Your task to perform on an android device: change notifications settings Image 0: 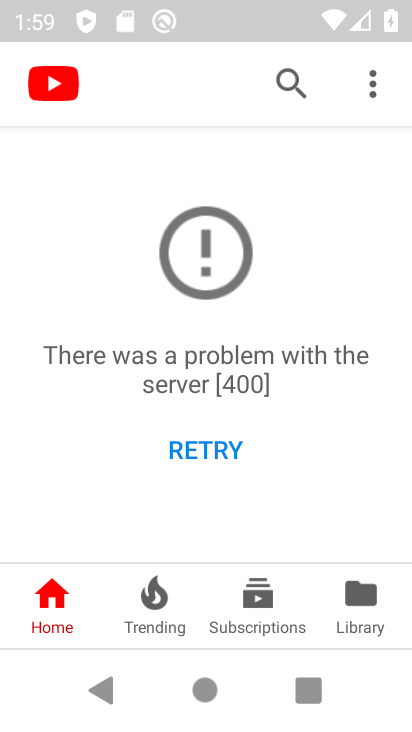
Step 0: press home button
Your task to perform on an android device: change notifications settings Image 1: 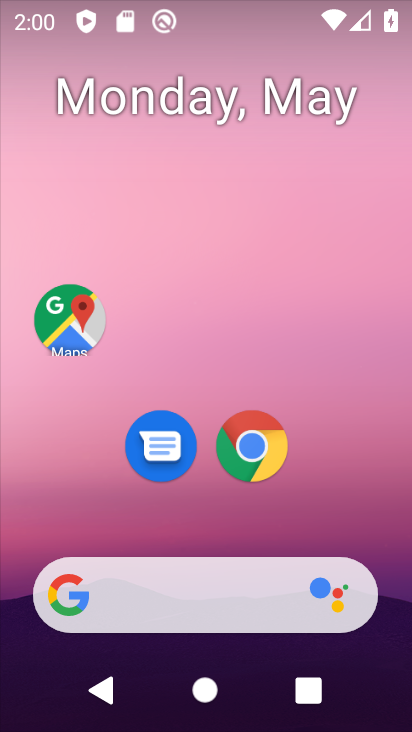
Step 1: drag from (372, 460) to (323, 62)
Your task to perform on an android device: change notifications settings Image 2: 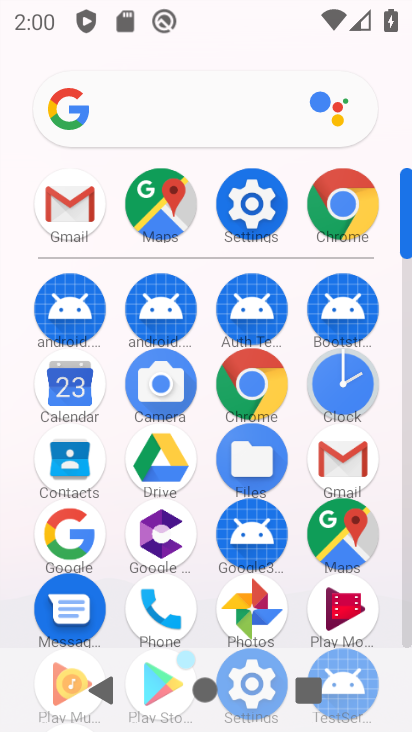
Step 2: click (257, 200)
Your task to perform on an android device: change notifications settings Image 3: 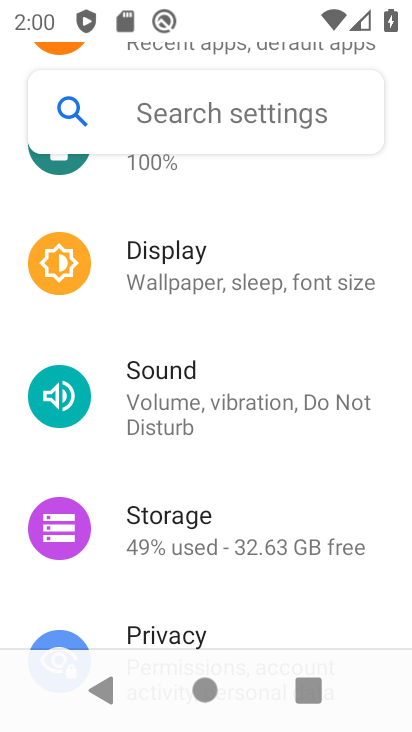
Step 3: drag from (228, 313) to (221, 547)
Your task to perform on an android device: change notifications settings Image 4: 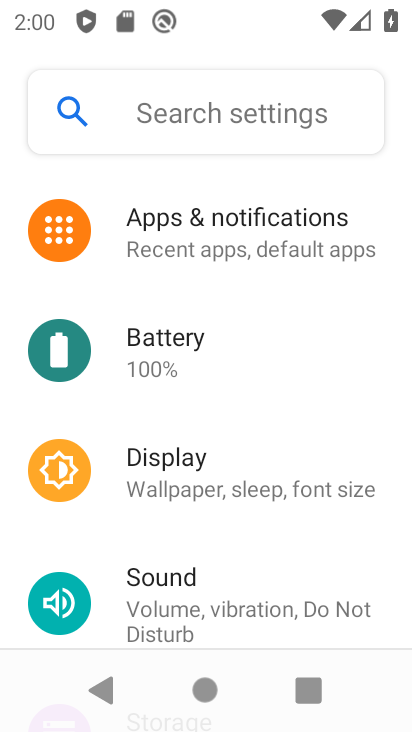
Step 4: click (212, 246)
Your task to perform on an android device: change notifications settings Image 5: 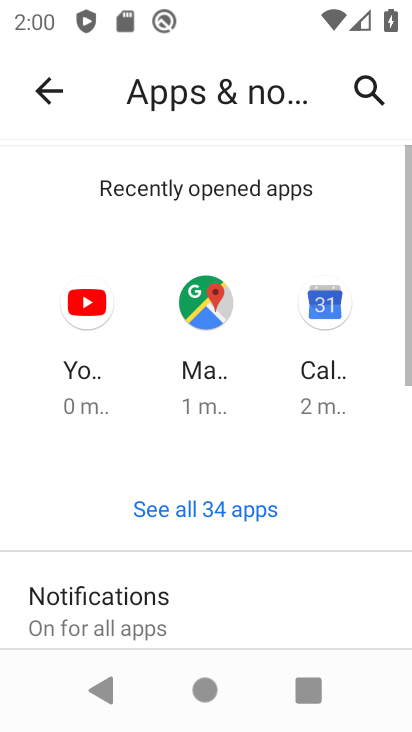
Step 5: click (121, 610)
Your task to perform on an android device: change notifications settings Image 6: 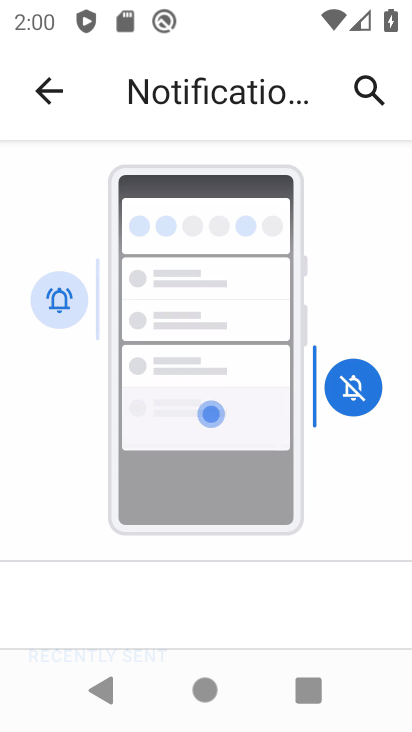
Step 6: drag from (236, 418) to (268, 252)
Your task to perform on an android device: change notifications settings Image 7: 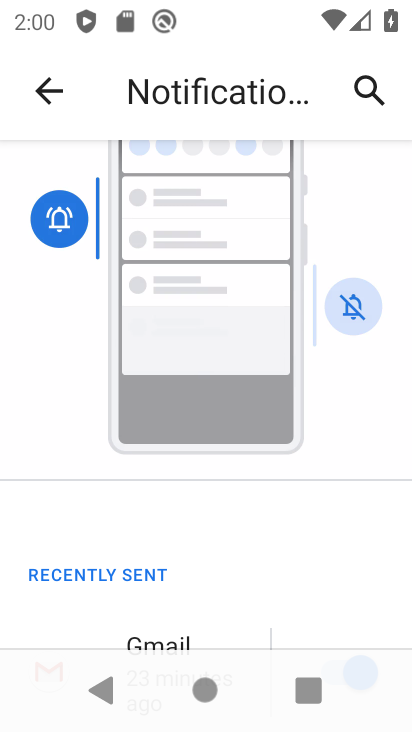
Step 7: drag from (253, 571) to (277, 199)
Your task to perform on an android device: change notifications settings Image 8: 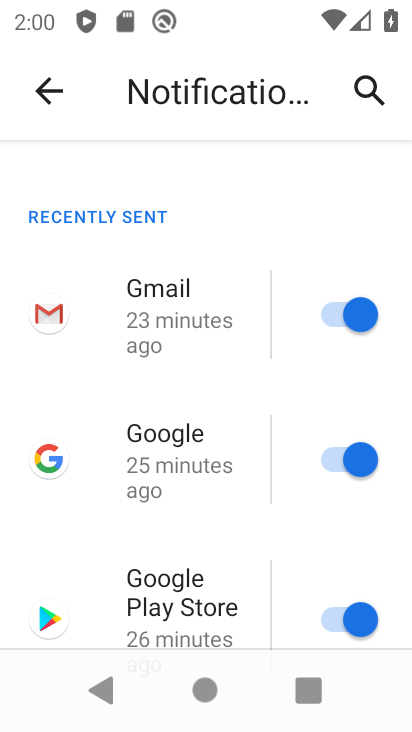
Step 8: drag from (203, 582) to (247, 248)
Your task to perform on an android device: change notifications settings Image 9: 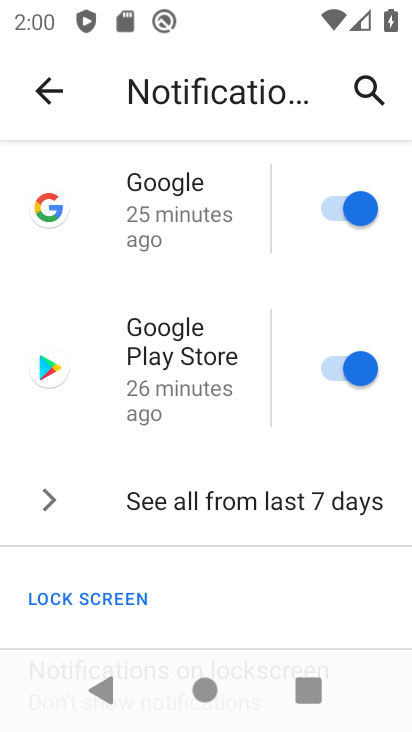
Step 9: drag from (195, 573) to (237, 232)
Your task to perform on an android device: change notifications settings Image 10: 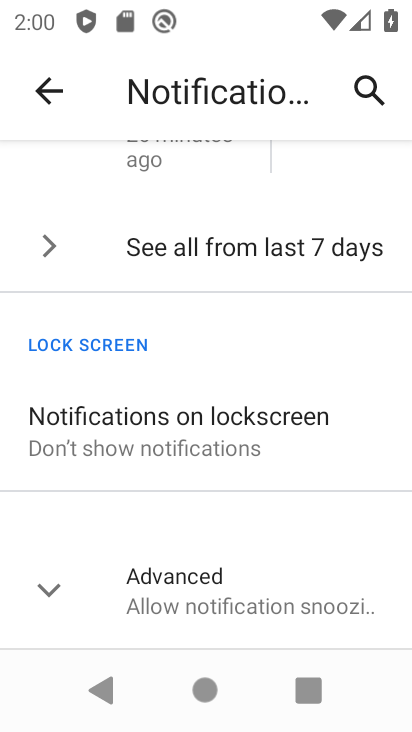
Step 10: click (208, 424)
Your task to perform on an android device: change notifications settings Image 11: 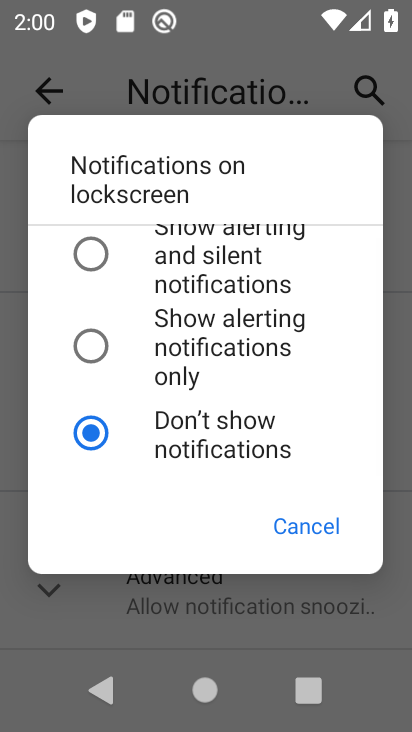
Step 11: click (282, 518)
Your task to perform on an android device: change notifications settings Image 12: 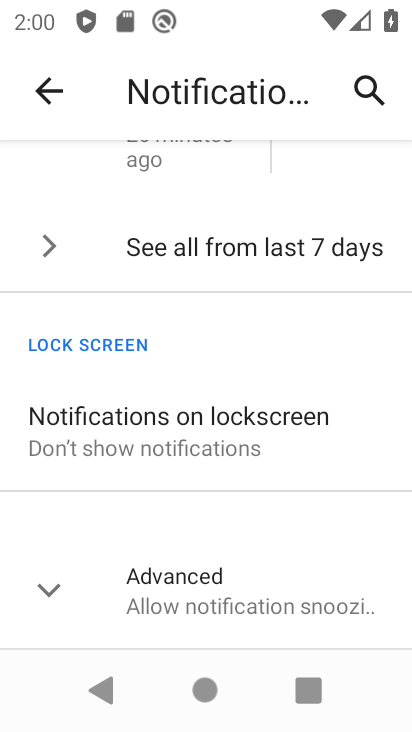
Step 12: task complete